Your task to perform on an android device: Open Chrome and go to settings Image 0: 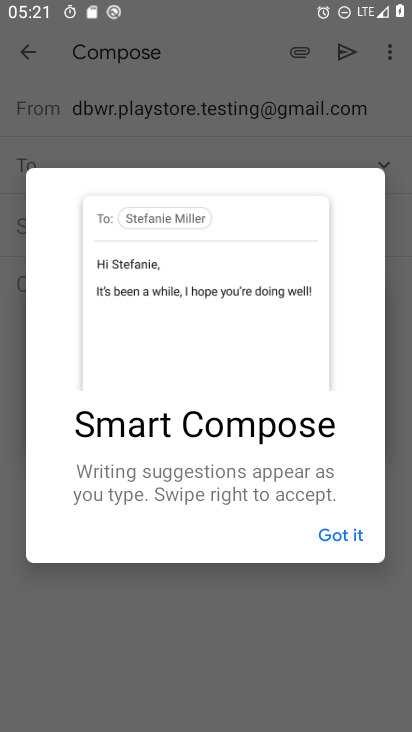
Step 0: press home button
Your task to perform on an android device: Open Chrome and go to settings Image 1: 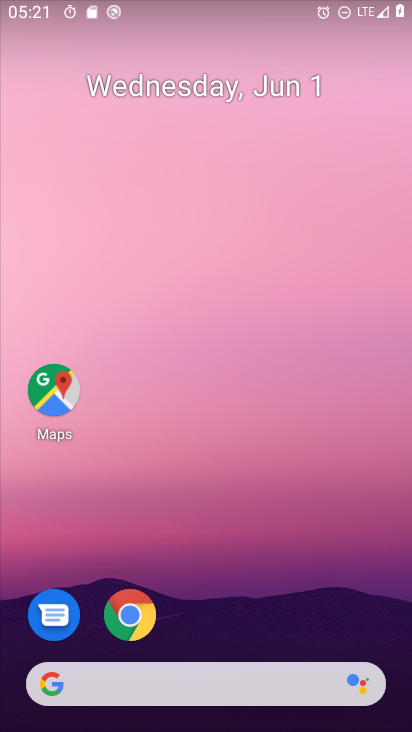
Step 1: drag from (76, 679) to (117, 23)
Your task to perform on an android device: Open Chrome and go to settings Image 2: 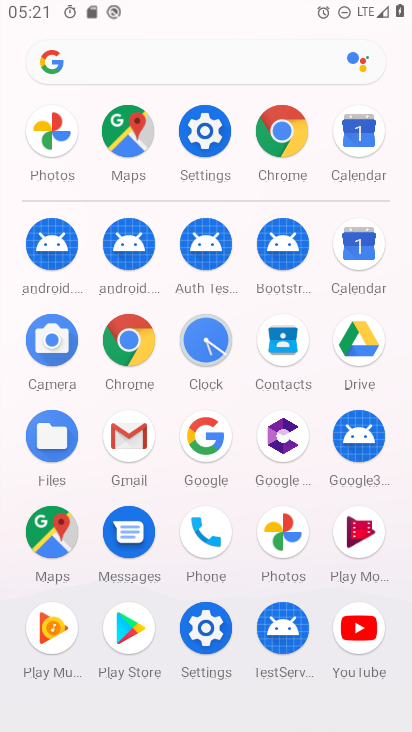
Step 2: click (130, 325)
Your task to perform on an android device: Open Chrome and go to settings Image 3: 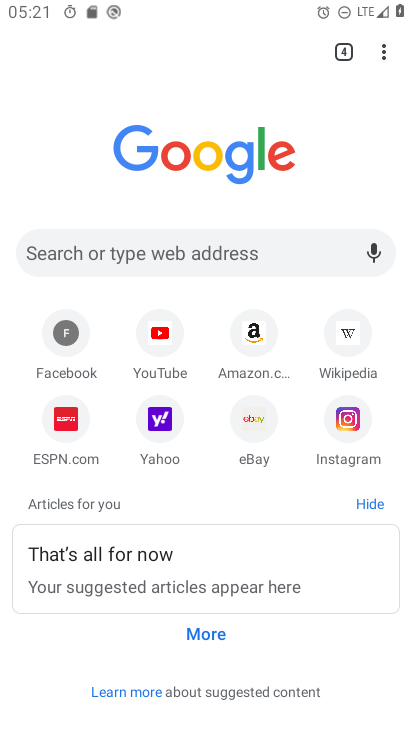
Step 3: task complete